Your task to perform on an android device: turn on sleep mode Image 0: 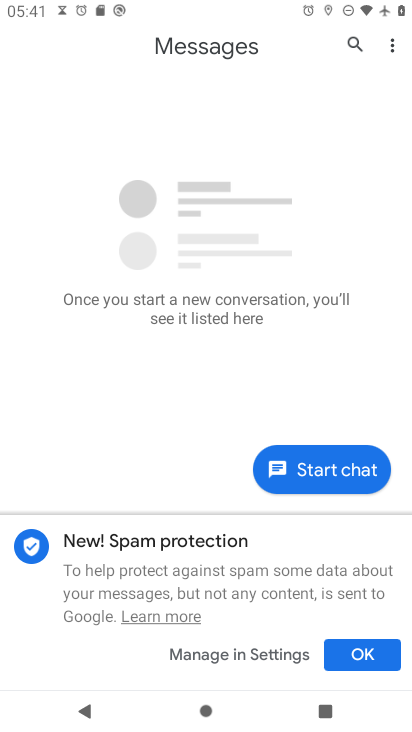
Step 0: press back button
Your task to perform on an android device: turn on sleep mode Image 1: 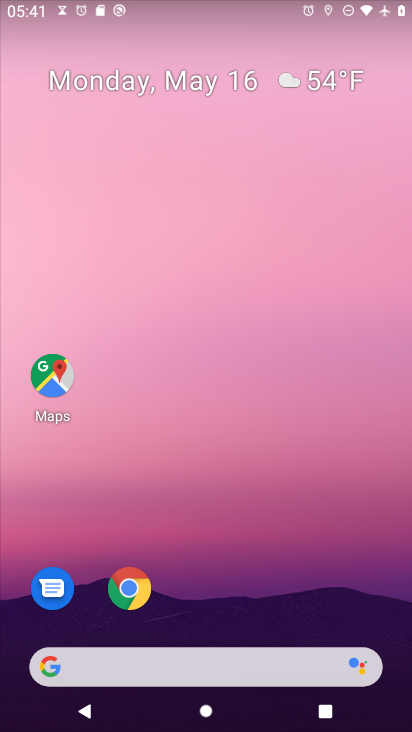
Step 1: drag from (226, 553) to (218, 51)
Your task to perform on an android device: turn on sleep mode Image 2: 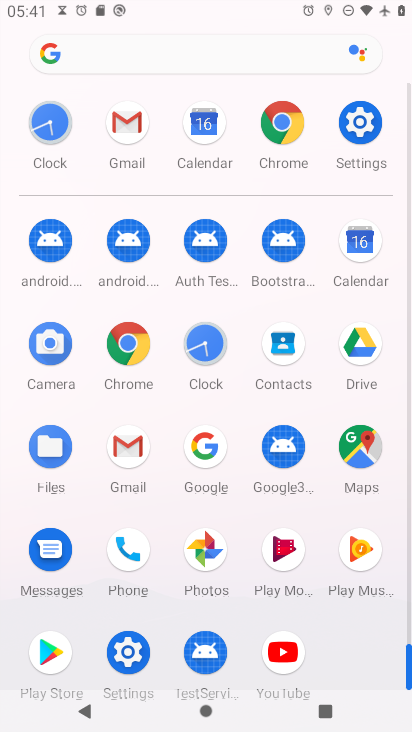
Step 2: drag from (8, 453) to (18, 149)
Your task to perform on an android device: turn on sleep mode Image 3: 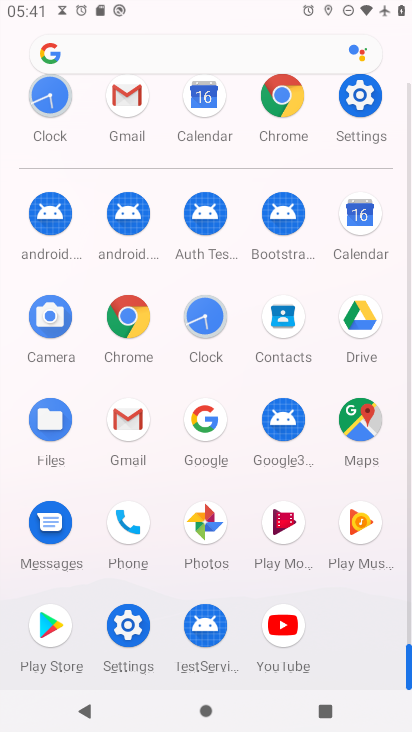
Step 3: click (124, 622)
Your task to perform on an android device: turn on sleep mode Image 4: 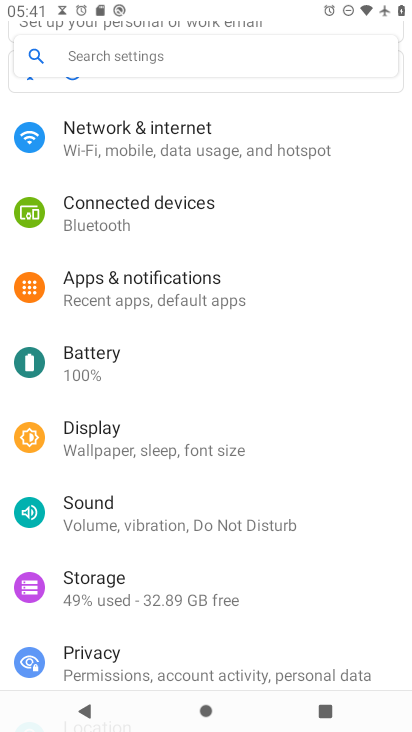
Step 4: drag from (200, 455) to (199, 238)
Your task to perform on an android device: turn on sleep mode Image 5: 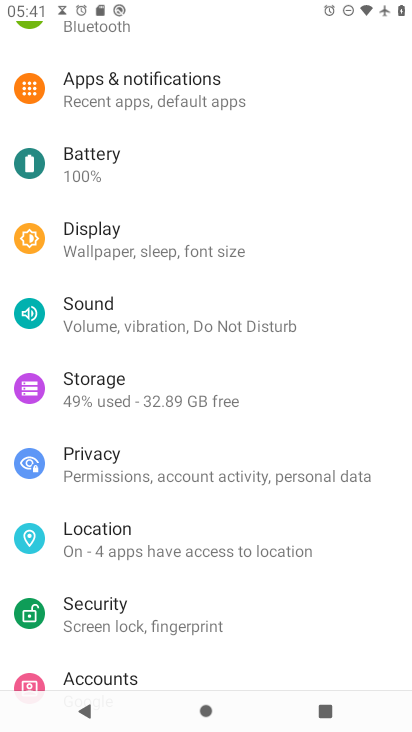
Step 5: drag from (169, 573) to (215, 215)
Your task to perform on an android device: turn on sleep mode Image 6: 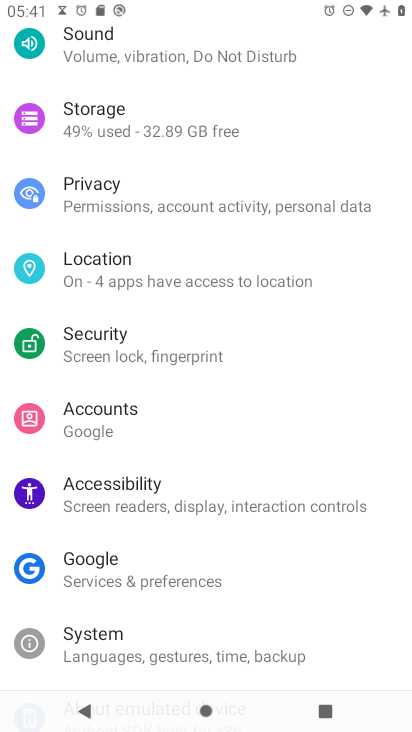
Step 6: drag from (178, 595) to (178, 226)
Your task to perform on an android device: turn on sleep mode Image 7: 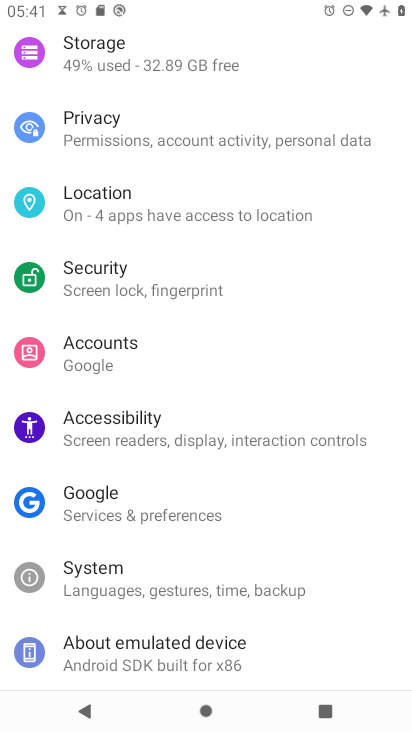
Step 7: drag from (216, 211) to (226, 536)
Your task to perform on an android device: turn on sleep mode Image 8: 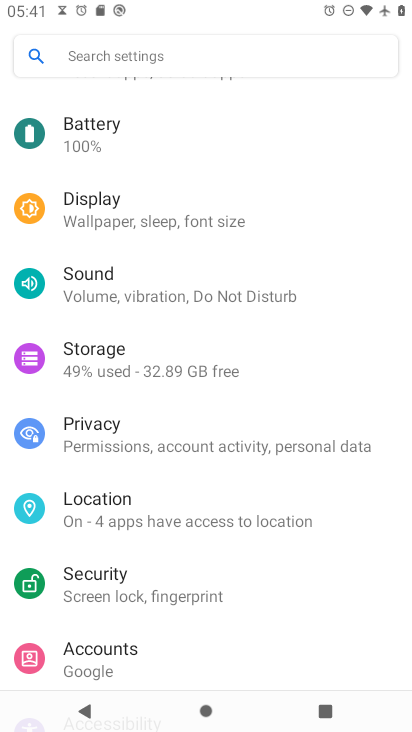
Step 8: drag from (237, 276) to (231, 519)
Your task to perform on an android device: turn on sleep mode Image 9: 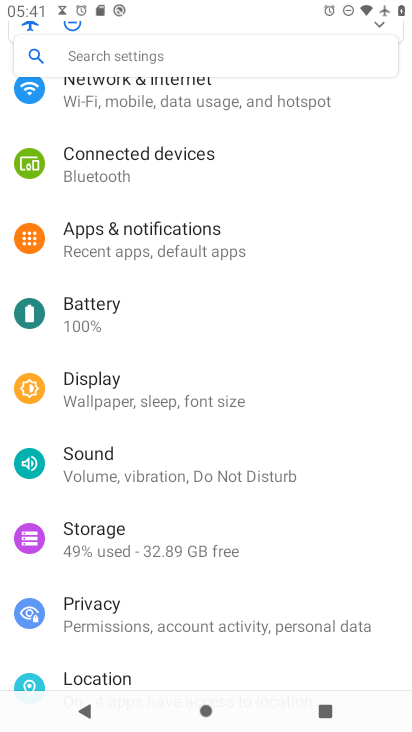
Step 9: click (191, 399)
Your task to perform on an android device: turn on sleep mode Image 10: 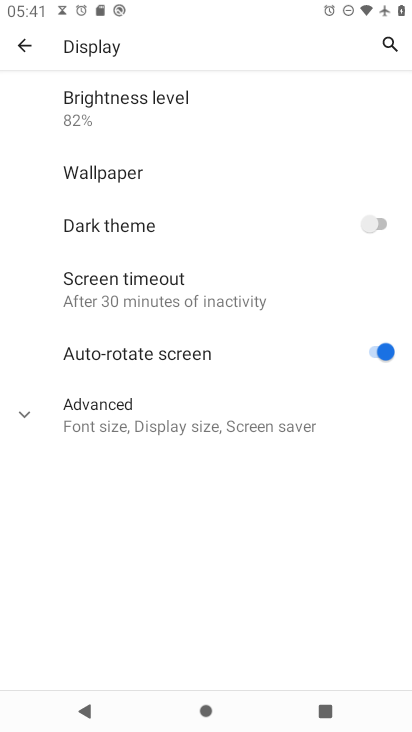
Step 10: click (34, 410)
Your task to perform on an android device: turn on sleep mode Image 11: 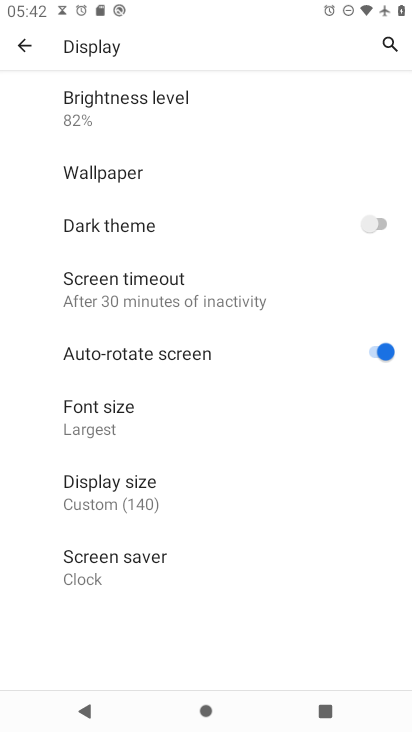
Step 11: click (19, 49)
Your task to perform on an android device: turn on sleep mode Image 12: 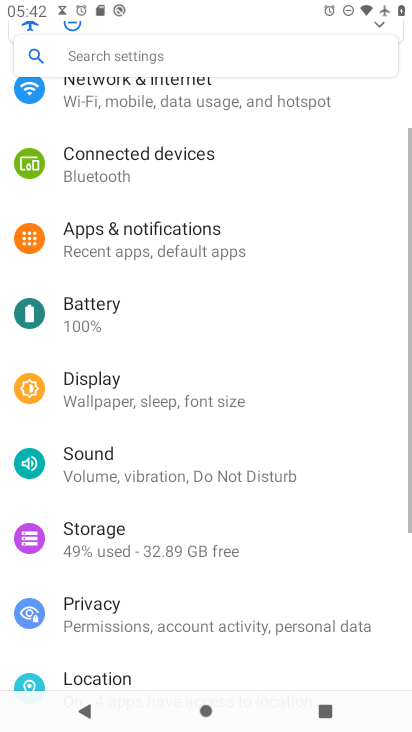
Step 12: drag from (255, 249) to (213, 508)
Your task to perform on an android device: turn on sleep mode Image 13: 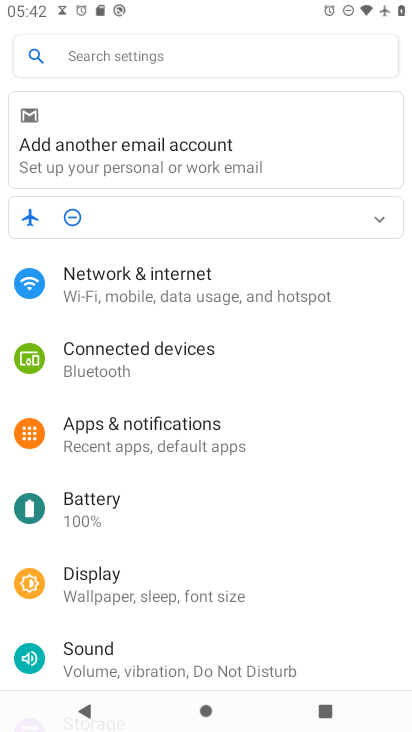
Step 13: click (149, 583)
Your task to perform on an android device: turn on sleep mode Image 14: 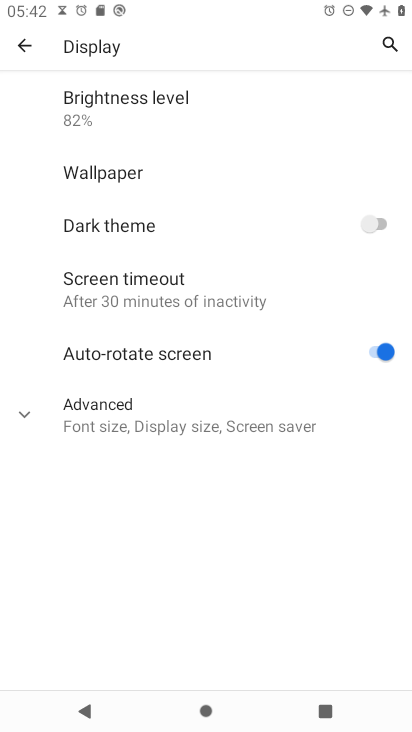
Step 14: task complete